Your task to perform on an android device: see tabs open on other devices in the chrome app Image 0: 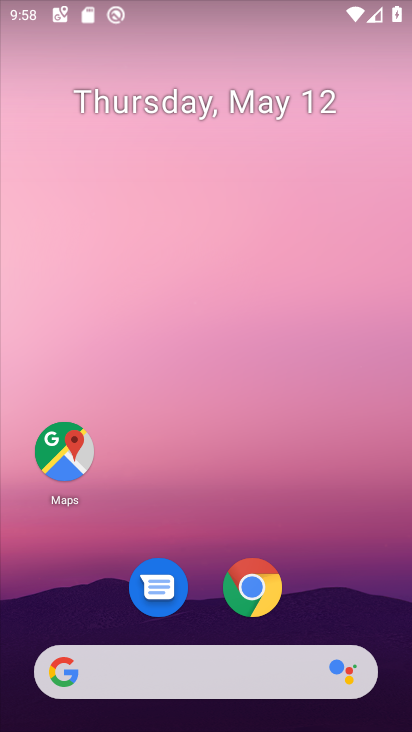
Step 0: drag from (378, 655) to (268, 41)
Your task to perform on an android device: see tabs open on other devices in the chrome app Image 1: 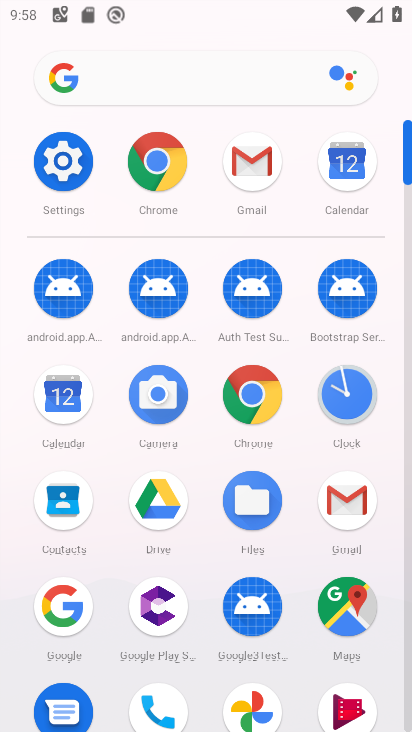
Step 1: click (249, 414)
Your task to perform on an android device: see tabs open on other devices in the chrome app Image 2: 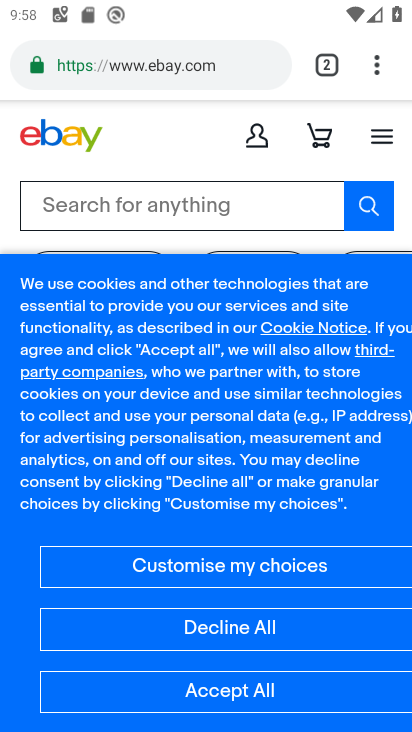
Step 2: task complete